Your task to perform on an android device: When is my next appointment? Image 0: 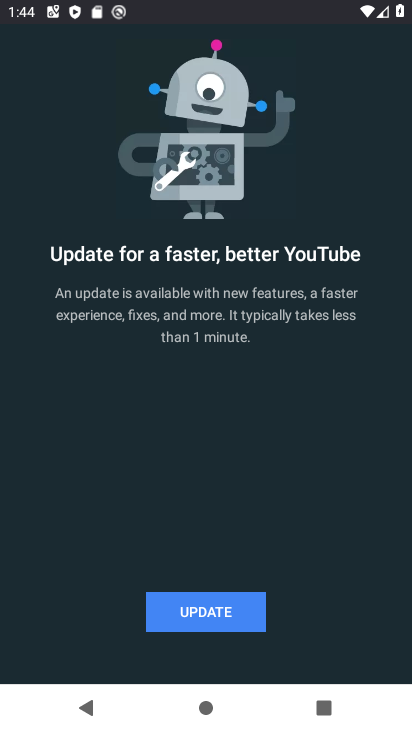
Step 0: press home button
Your task to perform on an android device: When is my next appointment? Image 1: 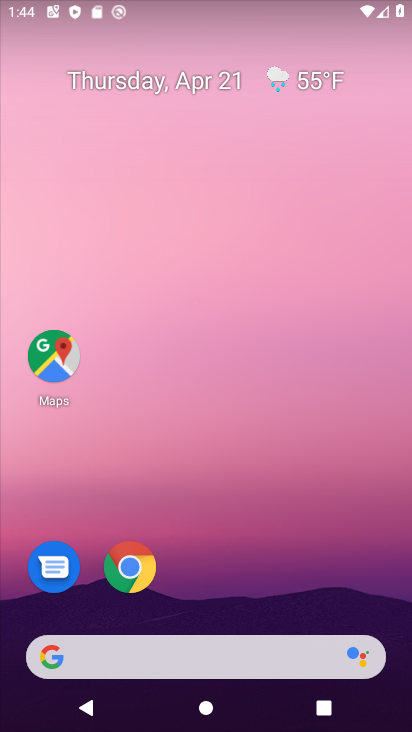
Step 1: drag from (214, 607) to (331, 101)
Your task to perform on an android device: When is my next appointment? Image 2: 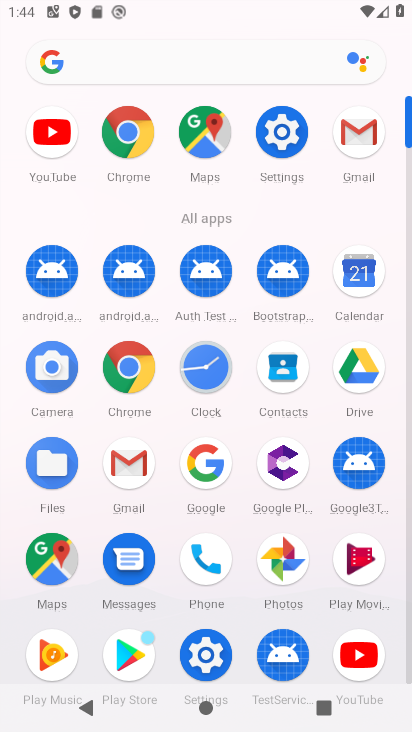
Step 2: click (354, 275)
Your task to perform on an android device: When is my next appointment? Image 3: 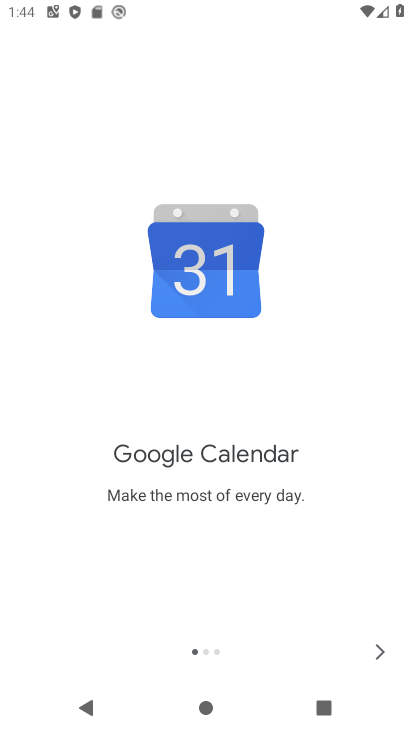
Step 3: click (374, 642)
Your task to perform on an android device: When is my next appointment? Image 4: 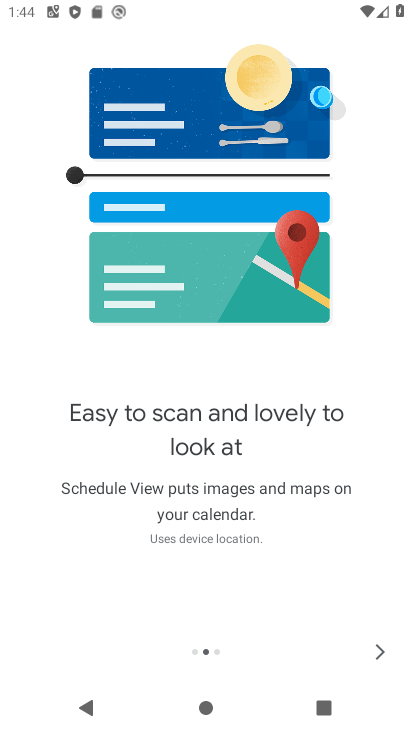
Step 4: click (375, 642)
Your task to perform on an android device: When is my next appointment? Image 5: 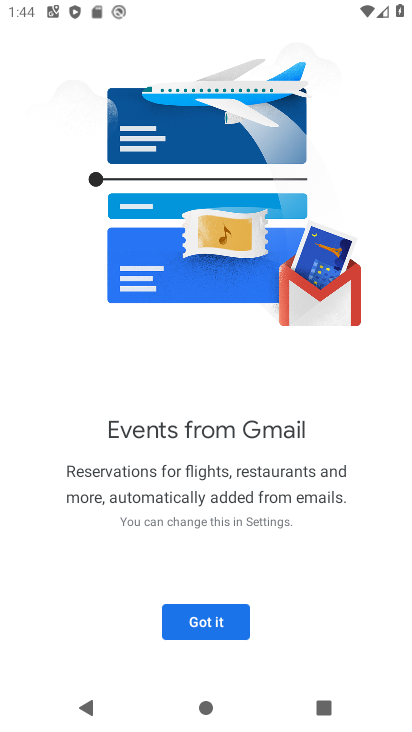
Step 5: click (205, 620)
Your task to perform on an android device: When is my next appointment? Image 6: 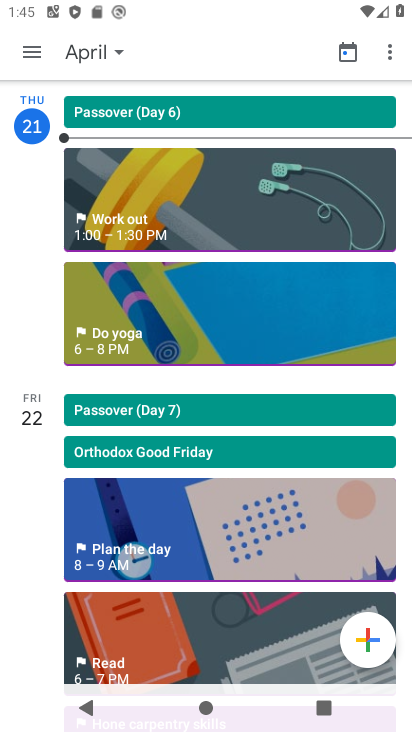
Step 6: task complete